Your task to perform on an android device: Open the phone app and click the voicemail tab. Image 0: 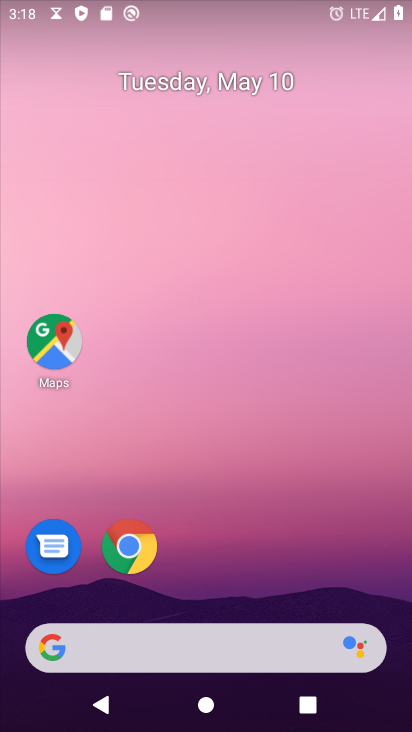
Step 0: drag from (222, 588) to (346, 53)
Your task to perform on an android device: Open the phone app and click the voicemail tab. Image 1: 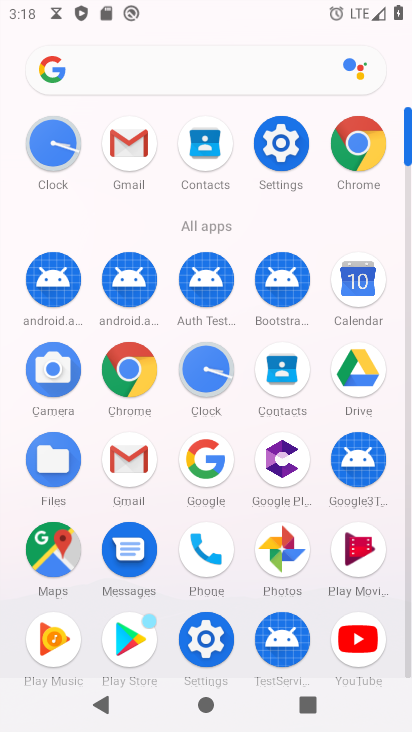
Step 1: click (201, 550)
Your task to perform on an android device: Open the phone app and click the voicemail tab. Image 2: 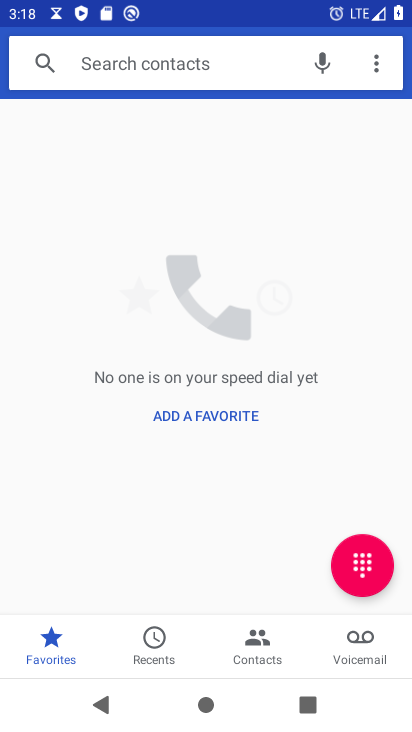
Step 2: click (339, 649)
Your task to perform on an android device: Open the phone app and click the voicemail tab. Image 3: 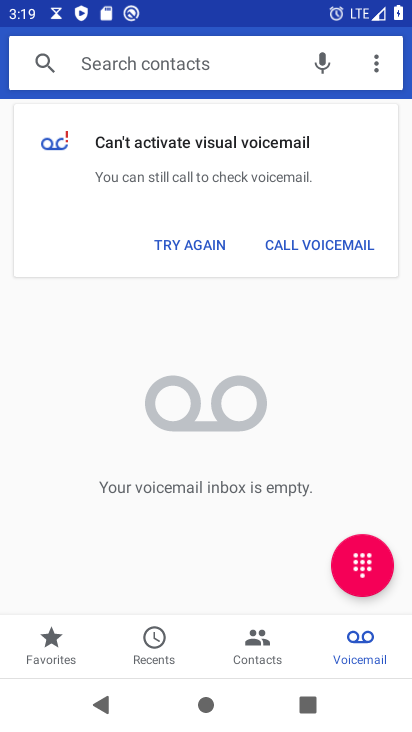
Step 3: task complete